Your task to perform on an android device: Do I have any events tomorrow? Image 0: 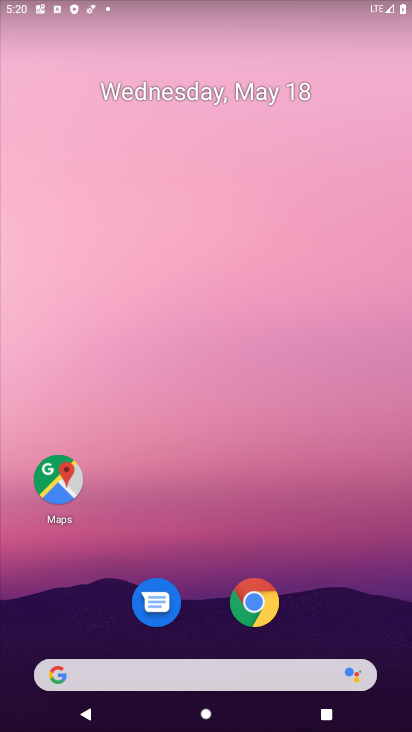
Step 0: drag from (244, 628) to (246, 64)
Your task to perform on an android device: Do I have any events tomorrow? Image 1: 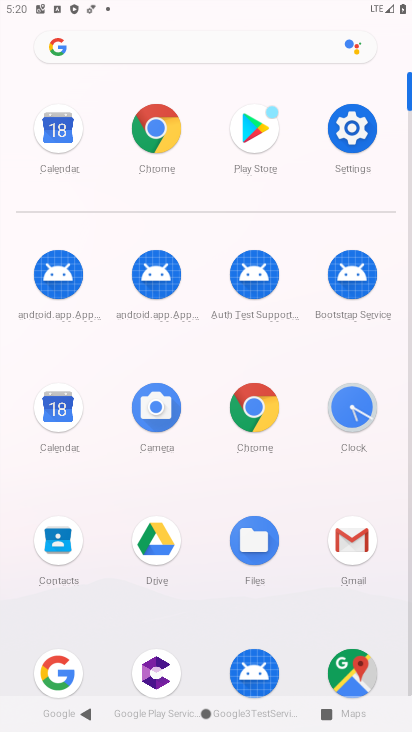
Step 1: click (60, 415)
Your task to perform on an android device: Do I have any events tomorrow? Image 2: 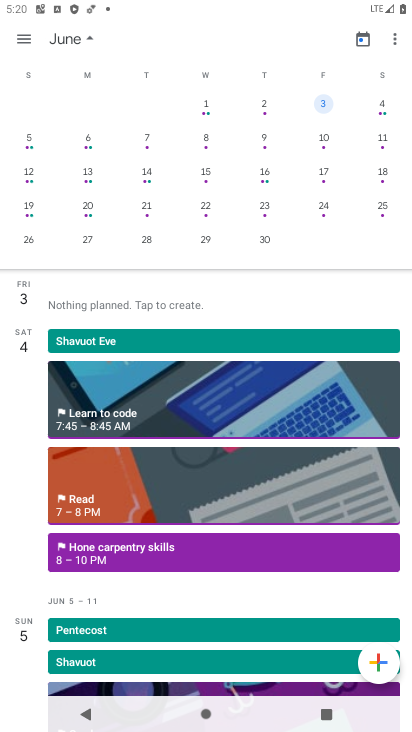
Step 2: drag from (72, 161) to (386, 186)
Your task to perform on an android device: Do I have any events tomorrow? Image 3: 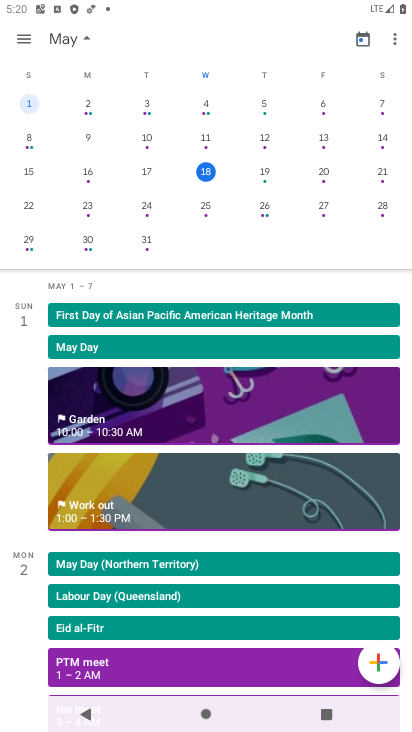
Step 3: click (260, 173)
Your task to perform on an android device: Do I have any events tomorrow? Image 4: 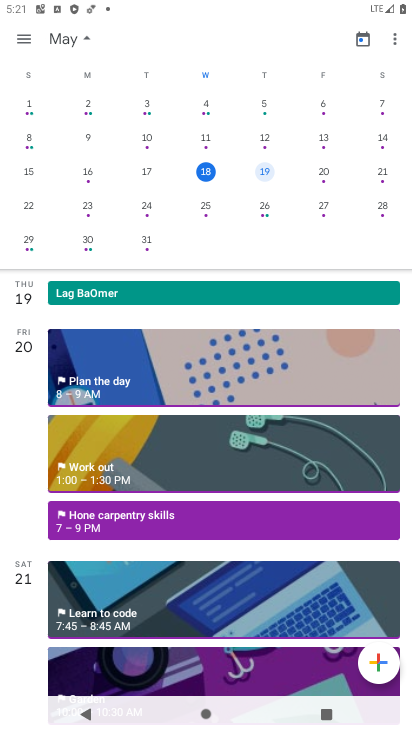
Step 4: task complete